Your task to perform on an android device: Go to display settings Image 0: 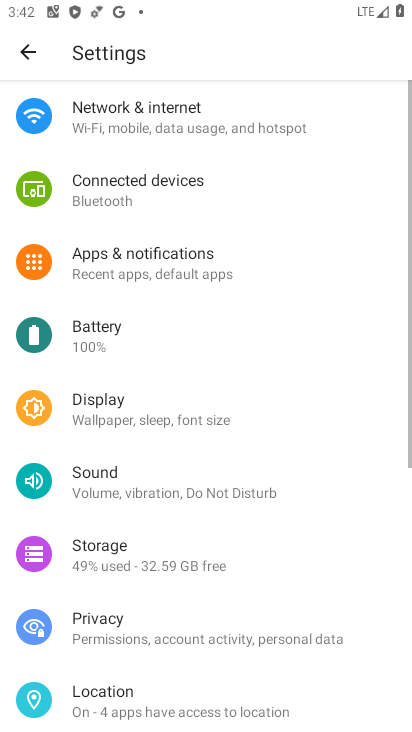
Step 0: press home button
Your task to perform on an android device: Go to display settings Image 1: 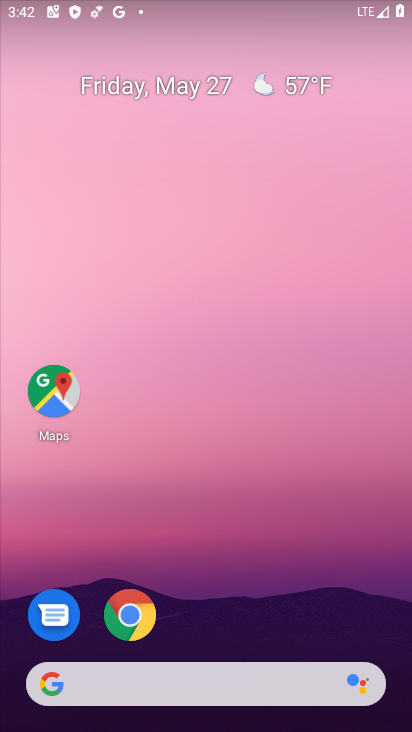
Step 1: drag from (249, 627) to (216, 156)
Your task to perform on an android device: Go to display settings Image 2: 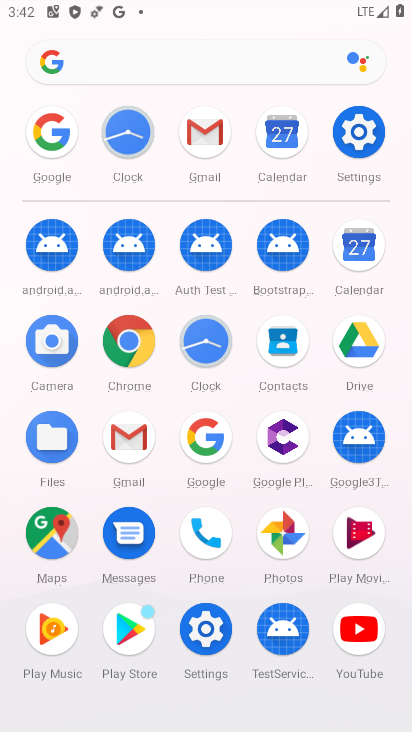
Step 2: click (359, 140)
Your task to perform on an android device: Go to display settings Image 3: 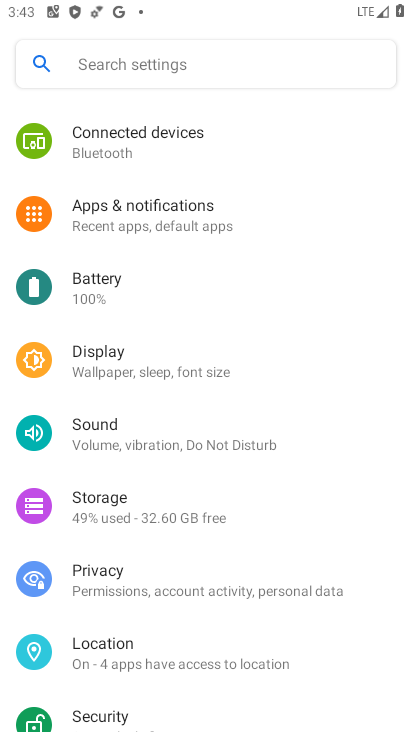
Step 3: click (133, 372)
Your task to perform on an android device: Go to display settings Image 4: 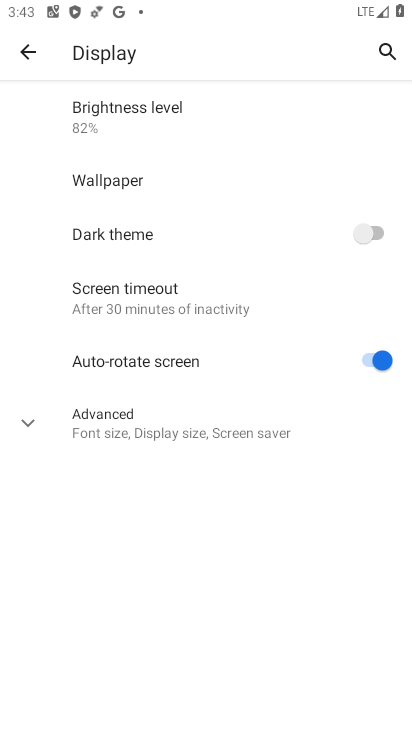
Step 4: task complete